Your task to perform on an android device: Open Youtube and go to the subscriptions tab Image 0: 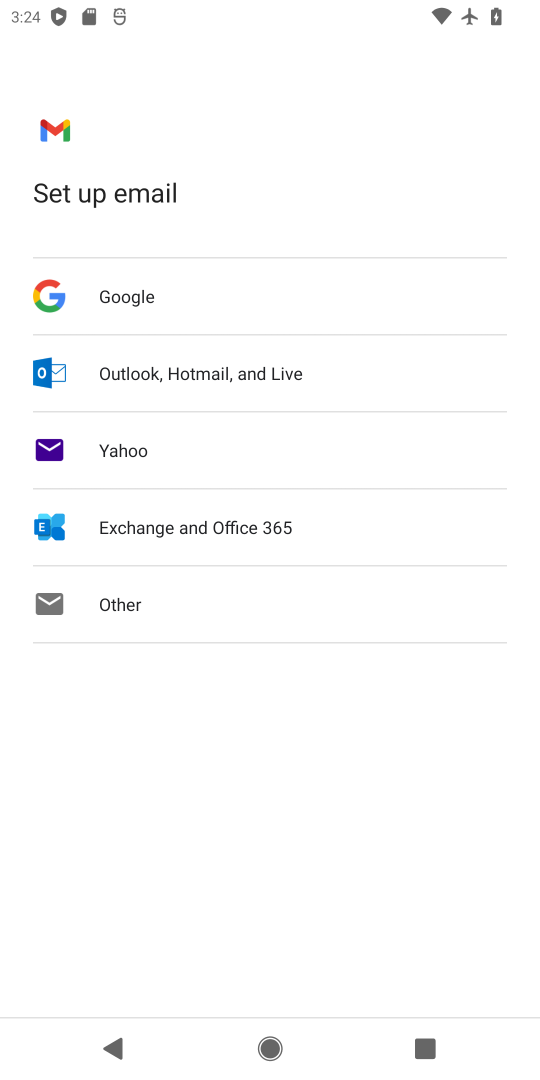
Step 0: press home button
Your task to perform on an android device: Open Youtube and go to the subscriptions tab Image 1: 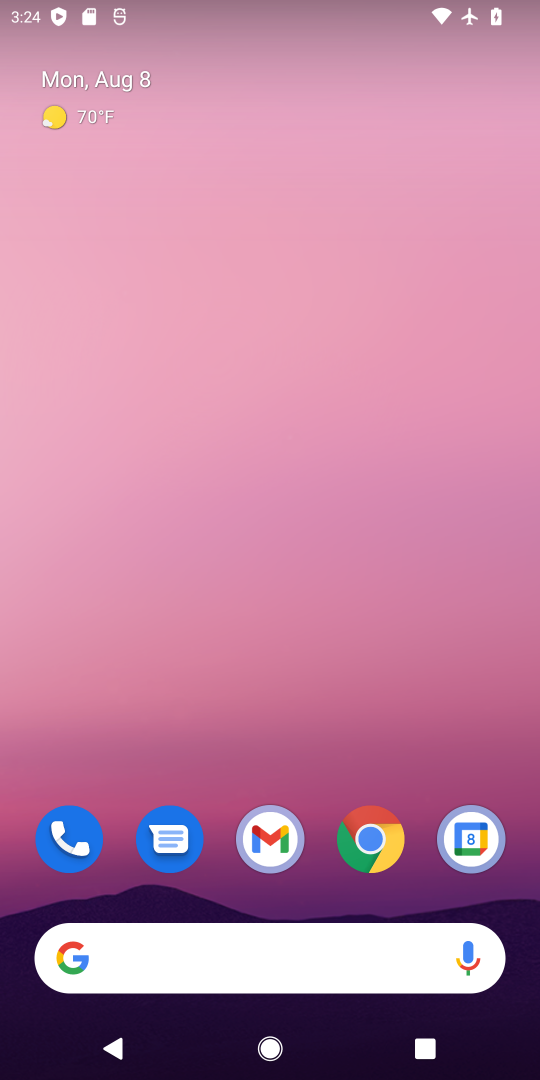
Step 1: drag from (411, 725) to (471, 259)
Your task to perform on an android device: Open Youtube and go to the subscriptions tab Image 2: 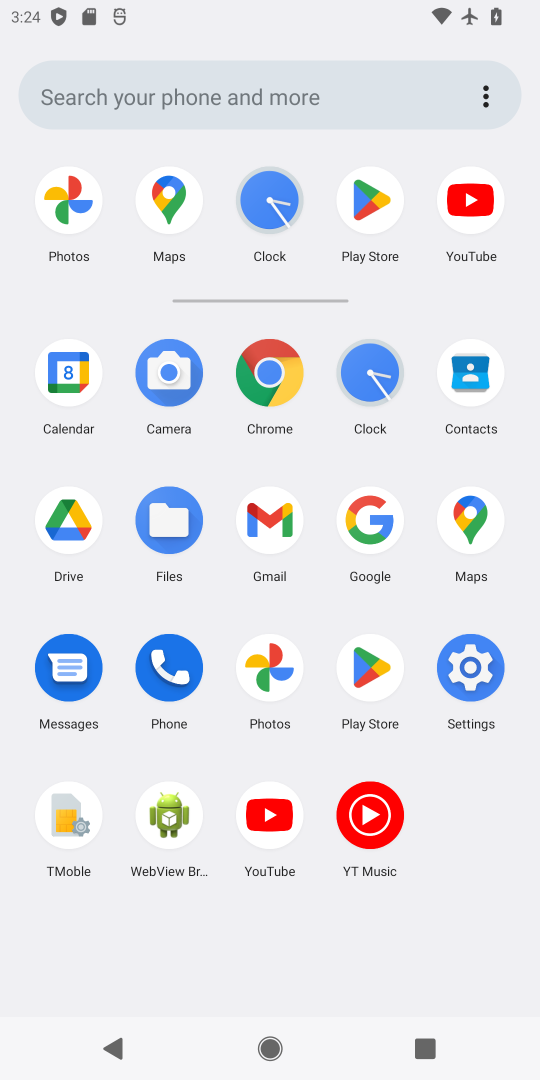
Step 2: click (271, 820)
Your task to perform on an android device: Open Youtube and go to the subscriptions tab Image 3: 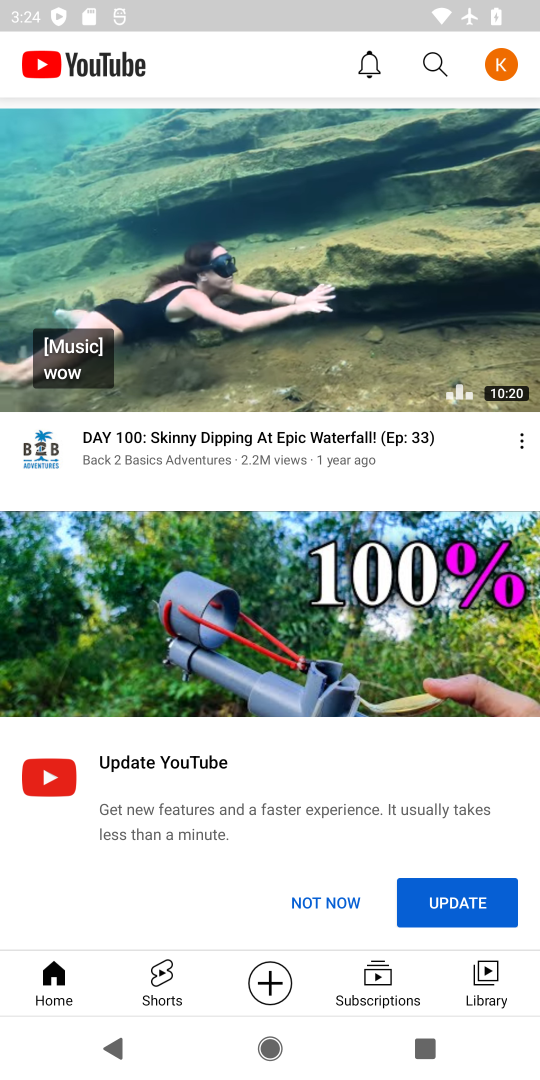
Step 3: click (385, 975)
Your task to perform on an android device: Open Youtube and go to the subscriptions tab Image 4: 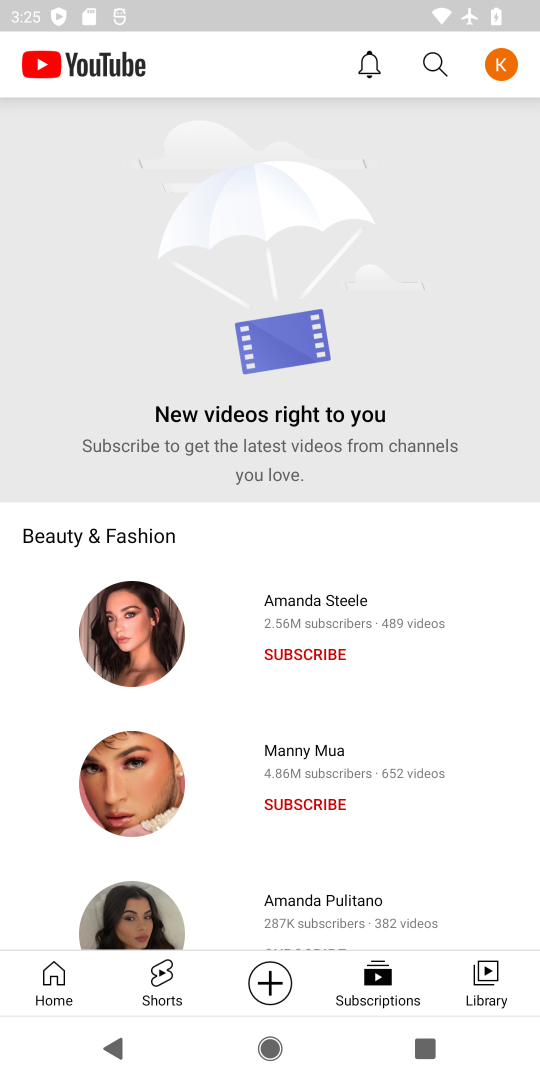
Step 4: task complete